Your task to perform on an android device: turn off notifications settings in the gmail app Image 0: 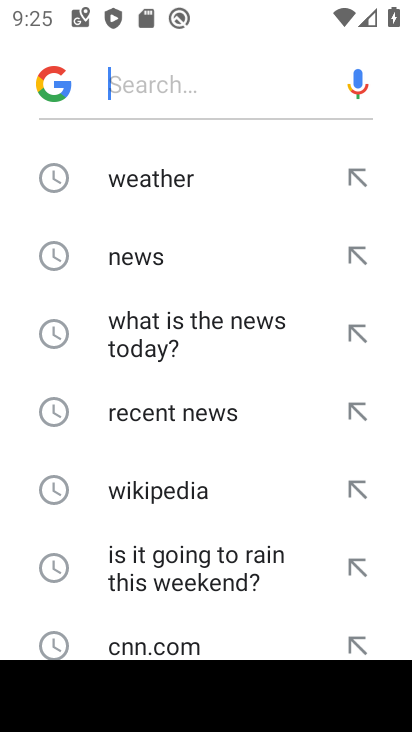
Step 0: press home button
Your task to perform on an android device: turn off notifications settings in the gmail app Image 1: 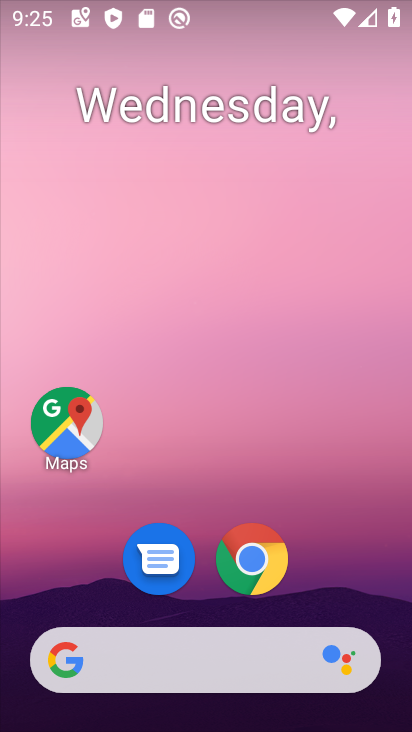
Step 1: drag from (278, 489) to (260, 129)
Your task to perform on an android device: turn off notifications settings in the gmail app Image 2: 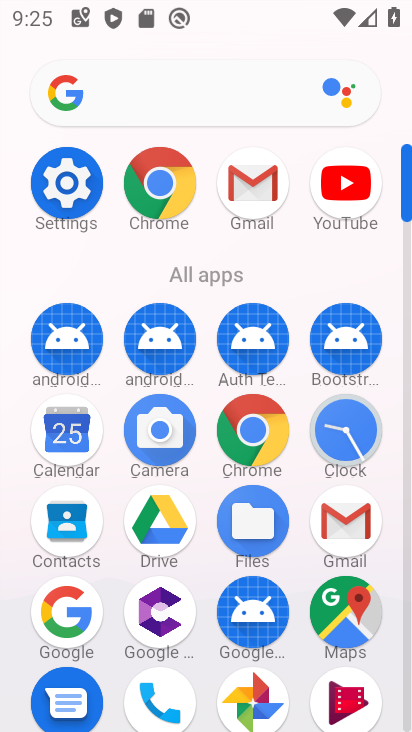
Step 2: click (249, 197)
Your task to perform on an android device: turn off notifications settings in the gmail app Image 3: 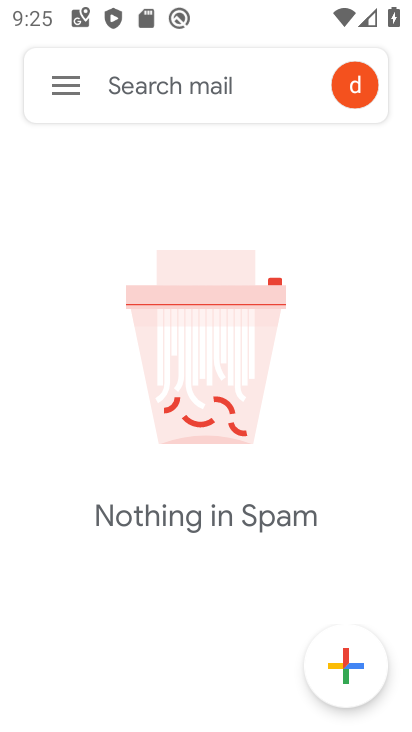
Step 3: click (63, 90)
Your task to perform on an android device: turn off notifications settings in the gmail app Image 4: 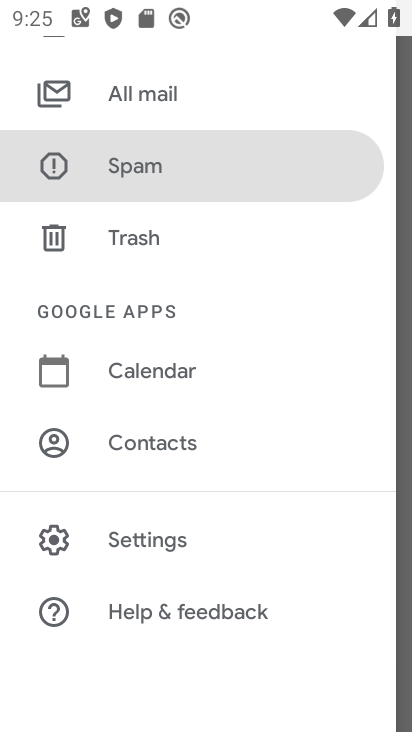
Step 4: click (167, 554)
Your task to perform on an android device: turn off notifications settings in the gmail app Image 5: 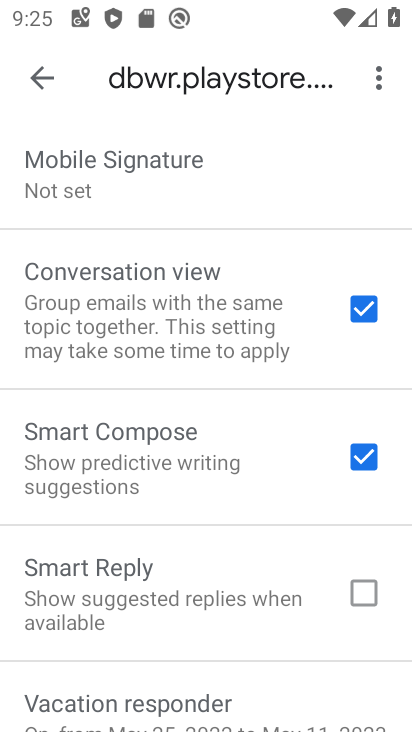
Step 5: drag from (248, 171) to (179, 568)
Your task to perform on an android device: turn off notifications settings in the gmail app Image 6: 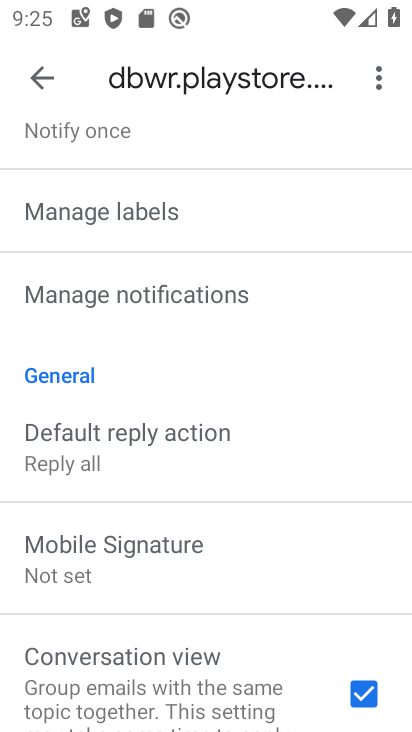
Step 6: click (172, 281)
Your task to perform on an android device: turn off notifications settings in the gmail app Image 7: 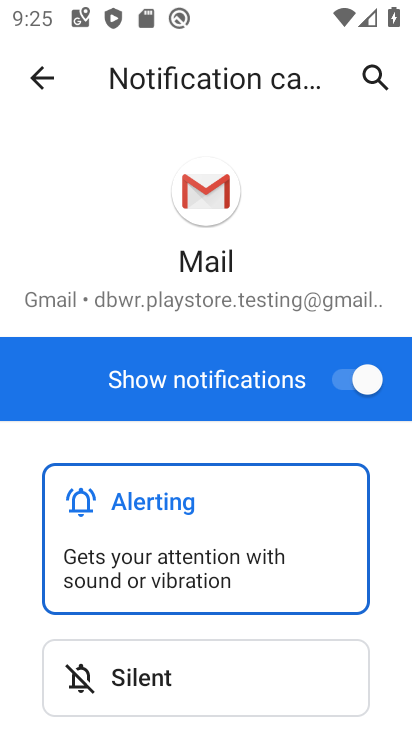
Step 7: click (352, 374)
Your task to perform on an android device: turn off notifications settings in the gmail app Image 8: 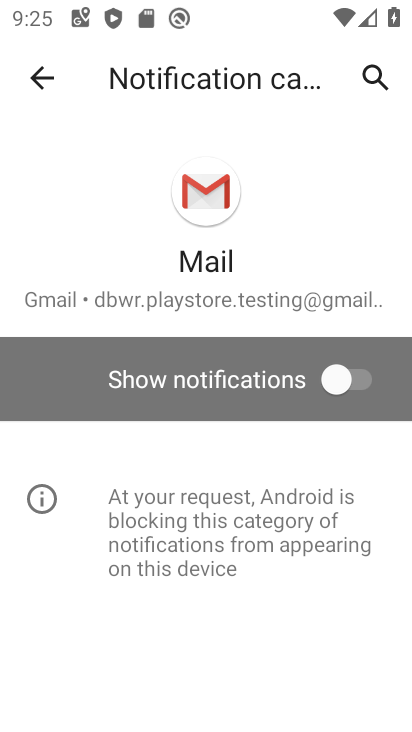
Step 8: task complete